Your task to perform on an android device: Is it going to rain tomorrow? Image 0: 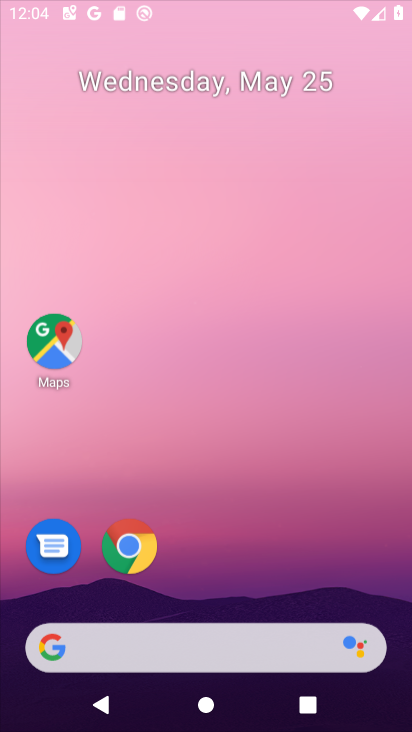
Step 0: click (264, 16)
Your task to perform on an android device: Is it going to rain tomorrow? Image 1: 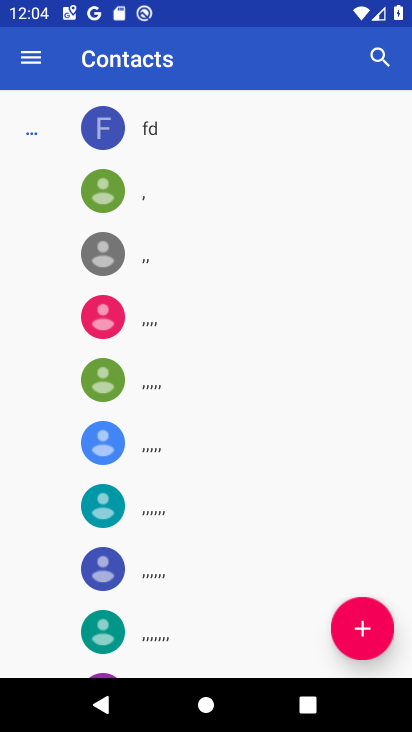
Step 1: press home button
Your task to perform on an android device: Is it going to rain tomorrow? Image 2: 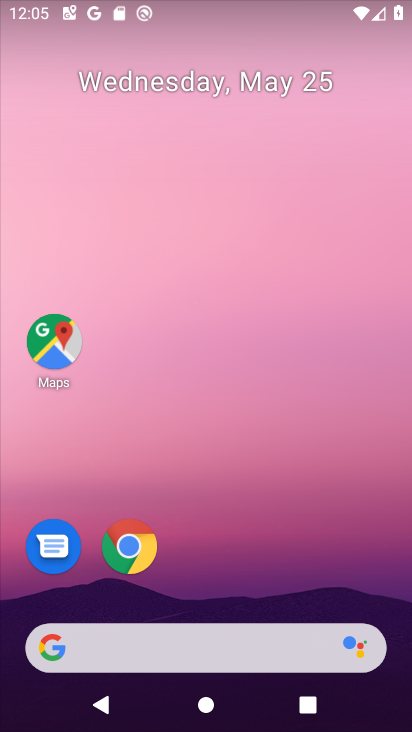
Step 2: click (207, 644)
Your task to perform on an android device: Is it going to rain tomorrow? Image 3: 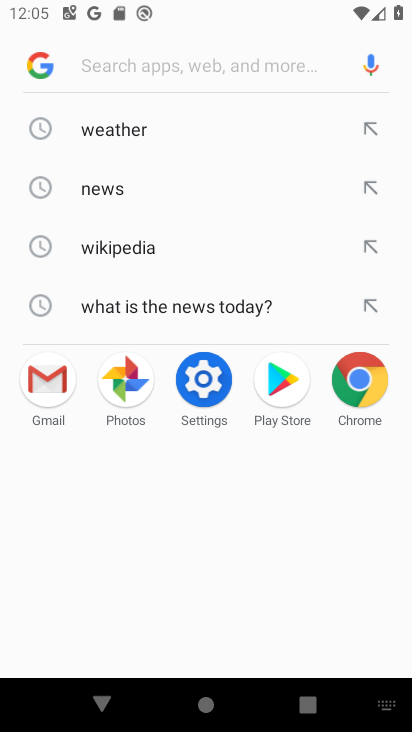
Step 3: click (135, 136)
Your task to perform on an android device: Is it going to rain tomorrow? Image 4: 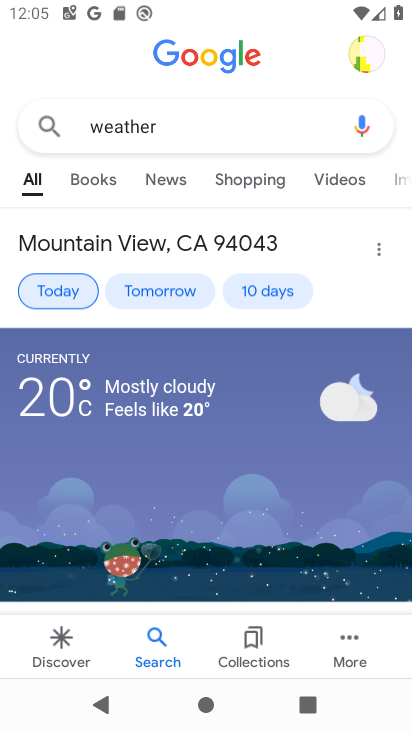
Step 4: task complete